Your task to perform on an android device: Open display settings Image 0: 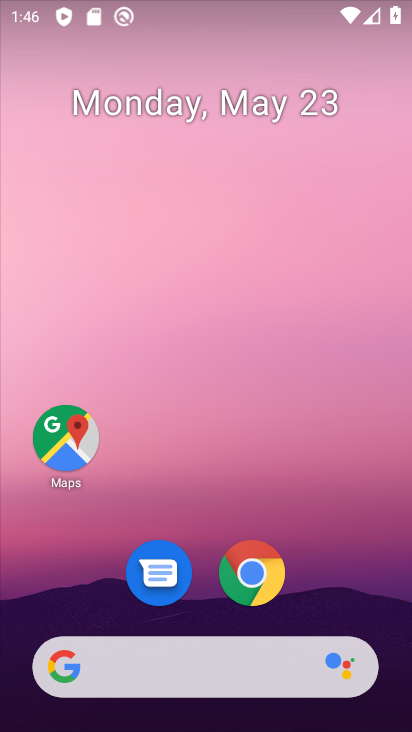
Step 0: drag from (366, 566) to (345, 133)
Your task to perform on an android device: Open display settings Image 1: 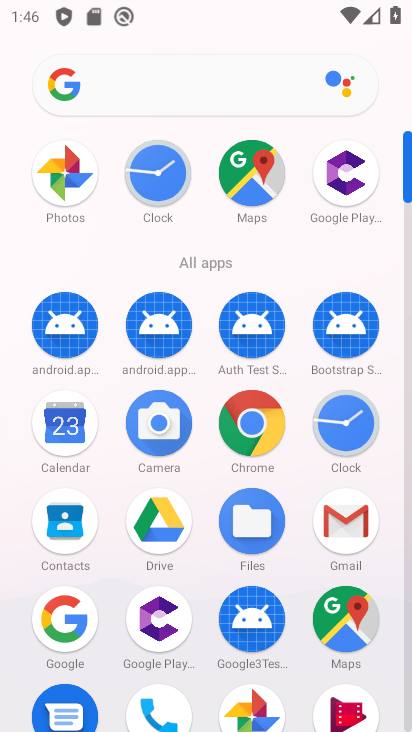
Step 1: drag from (206, 587) to (256, 170)
Your task to perform on an android device: Open display settings Image 2: 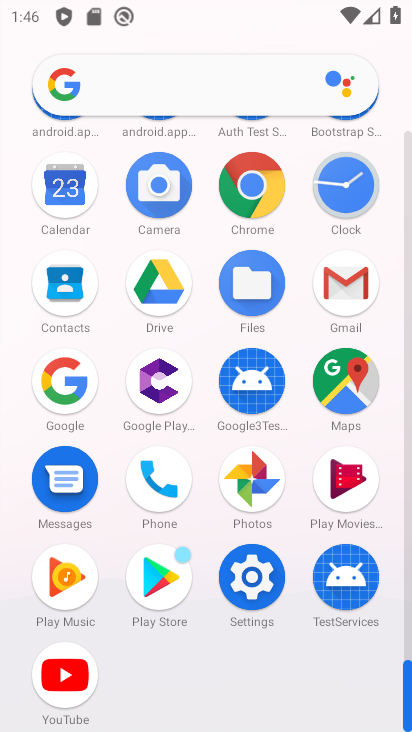
Step 2: click (262, 574)
Your task to perform on an android device: Open display settings Image 3: 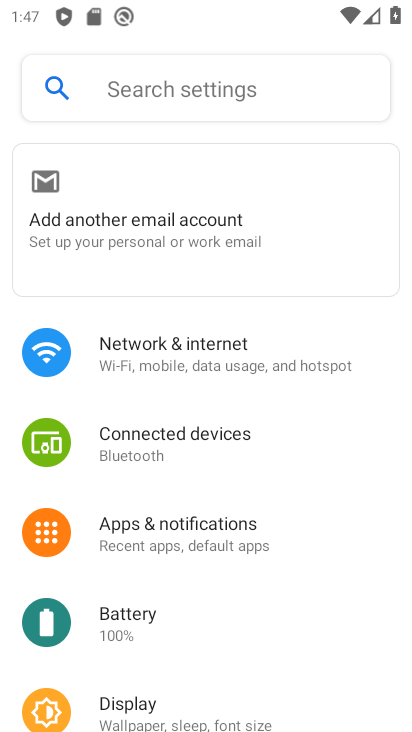
Step 3: drag from (171, 551) to (221, 159)
Your task to perform on an android device: Open display settings Image 4: 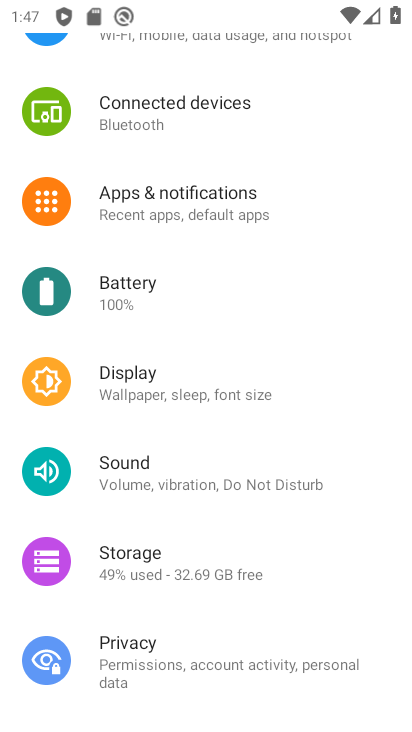
Step 4: click (150, 375)
Your task to perform on an android device: Open display settings Image 5: 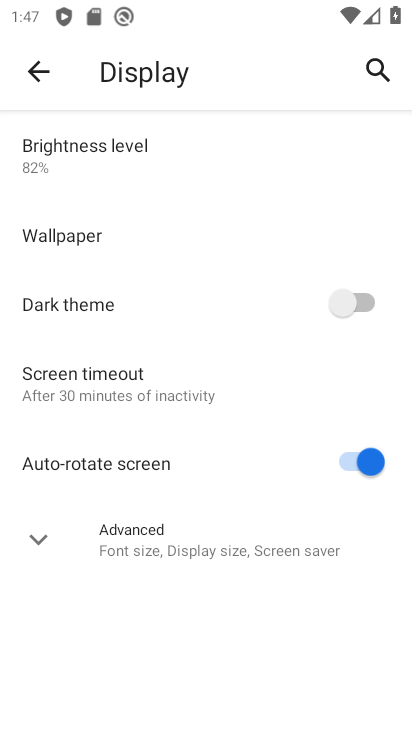
Step 5: task complete